Your task to perform on an android device: Go to privacy settings Image 0: 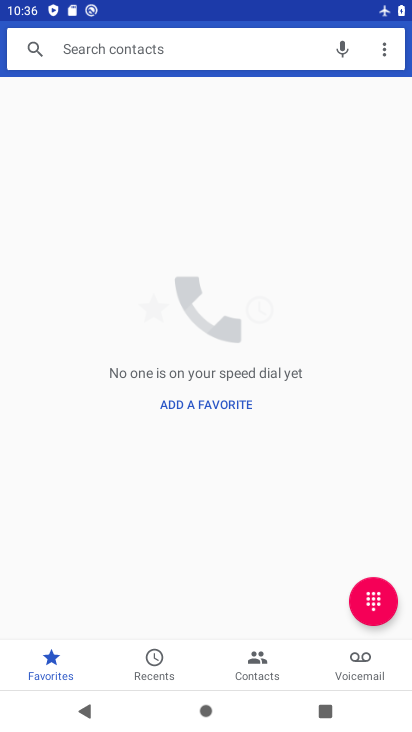
Step 0: press home button
Your task to perform on an android device: Go to privacy settings Image 1: 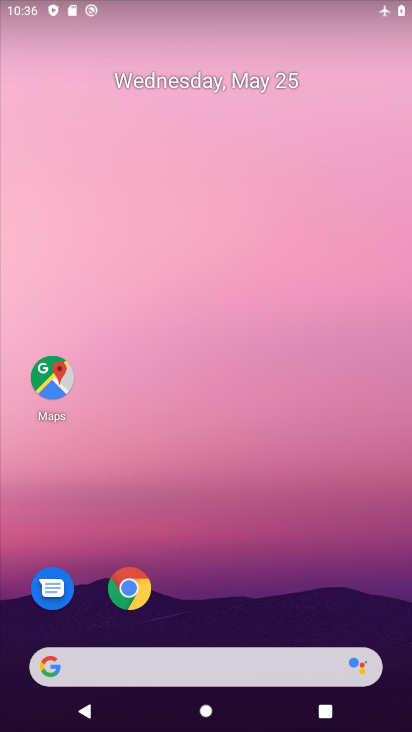
Step 1: drag from (225, 250) to (232, 112)
Your task to perform on an android device: Go to privacy settings Image 2: 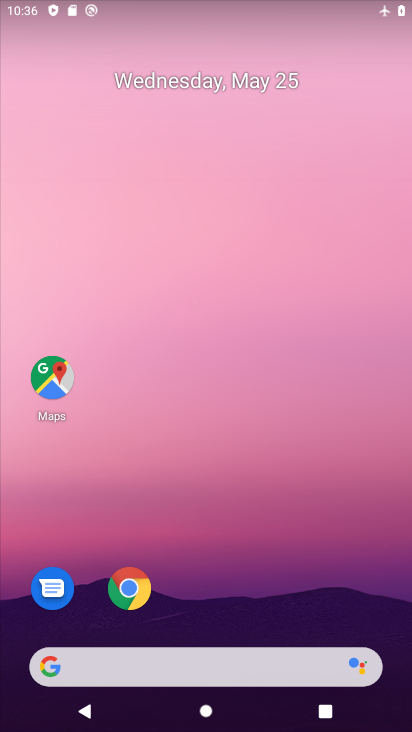
Step 2: drag from (219, 533) to (243, 91)
Your task to perform on an android device: Go to privacy settings Image 3: 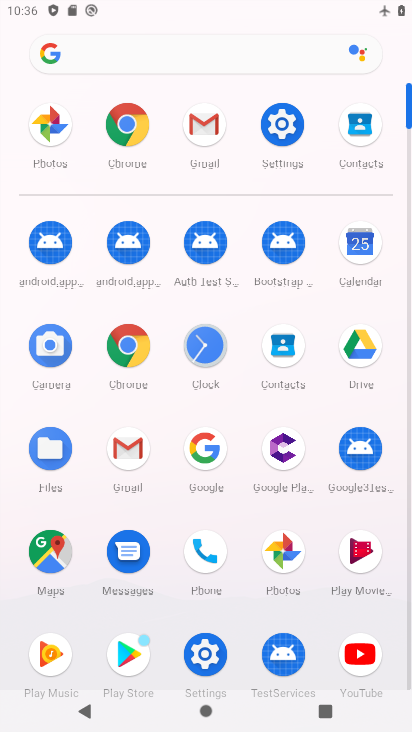
Step 3: click (289, 120)
Your task to perform on an android device: Go to privacy settings Image 4: 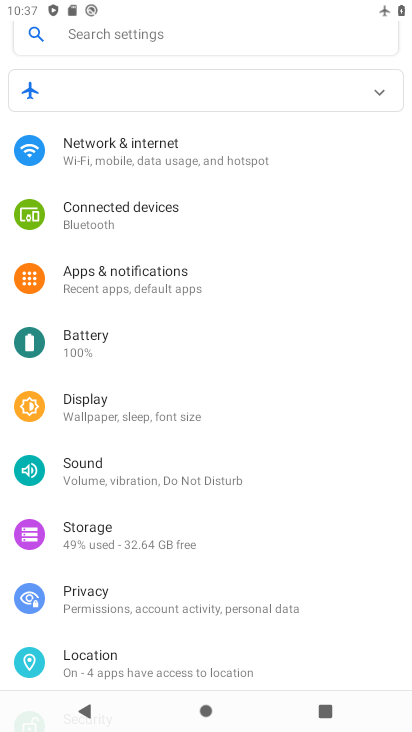
Step 4: drag from (135, 528) to (179, 197)
Your task to perform on an android device: Go to privacy settings Image 5: 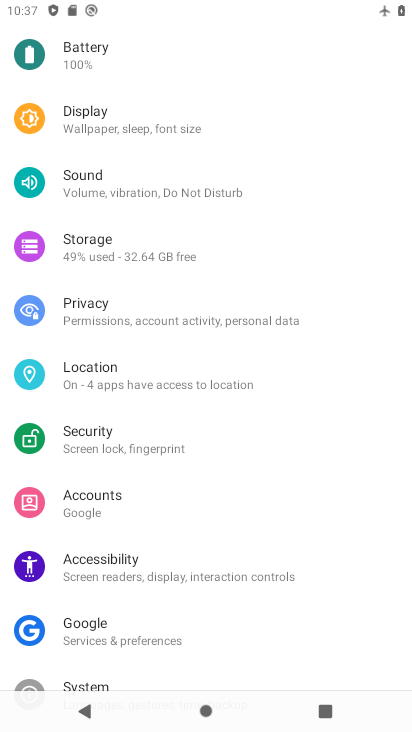
Step 5: drag from (124, 608) to (203, 278)
Your task to perform on an android device: Go to privacy settings Image 6: 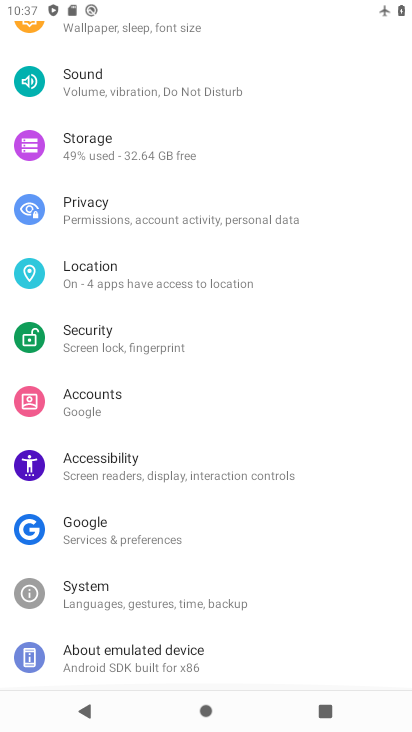
Step 6: click (152, 222)
Your task to perform on an android device: Go to privacy settings Image 7: 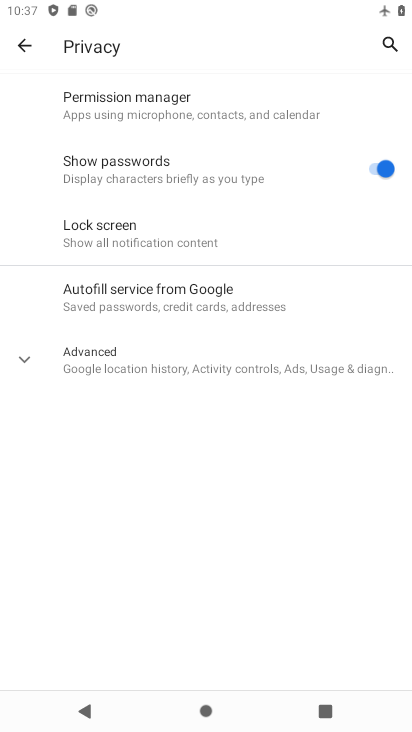
Step 7: task complete